Your task to perform on an android device: Set the phone to "Do not disturb". Image 0: 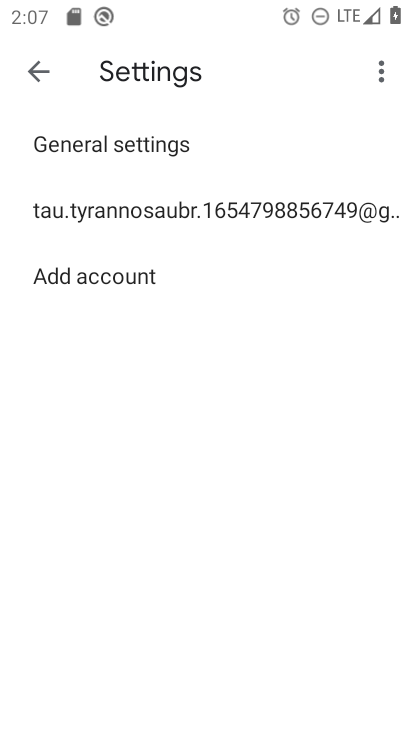
Step 0: drag from (223, 5) to (238, 508)
Your task to perform on an android device: Set the phone to "Do not disturb". Image 1: 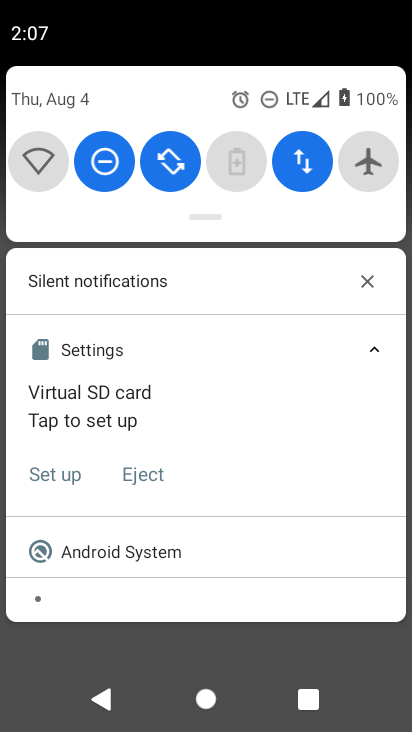
Step 1: task complete